Your task to perform on an android device: Go to Google Image 0: 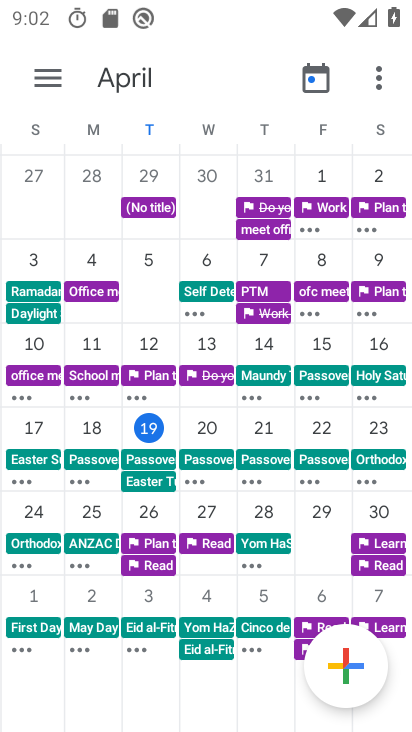
Step 0: press home button
Your task to perform on an android device: Go to Google Image 1: 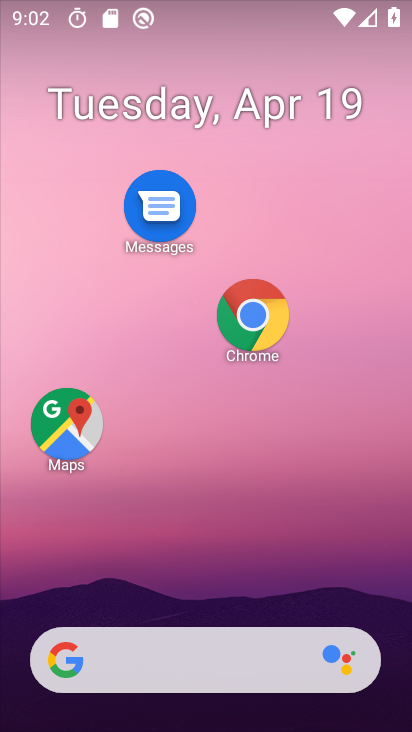
Step 1: drag from (194, 574) to (205, 266)
Your task to perform on an android device: Go to Google Image 2: 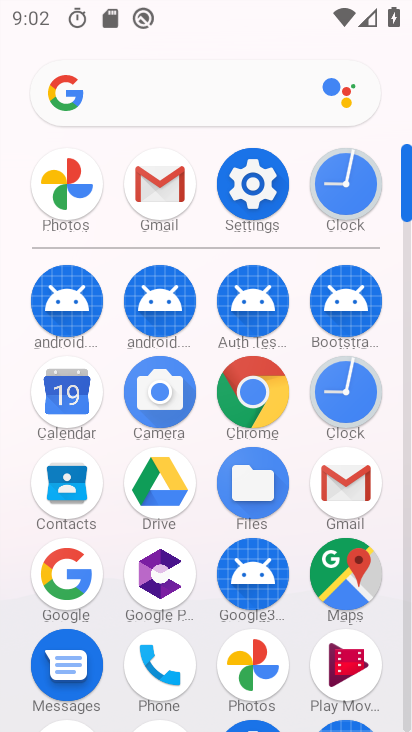
Step 2: drag from (204, 633) to (192, 234)
Your task to perform on an android device: Go to Google Image 3: 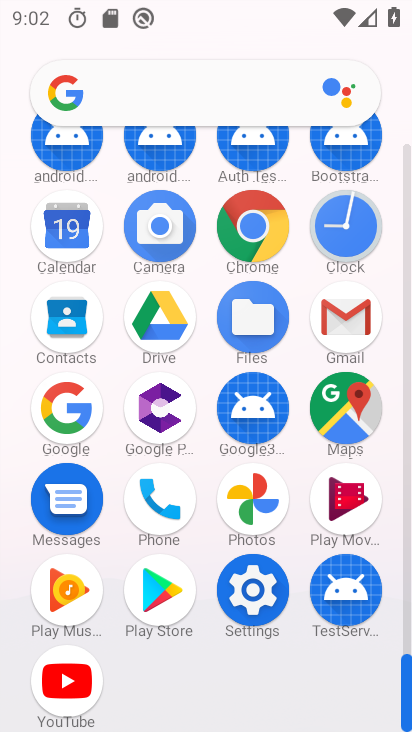
Step 3: click (77, 415)
Your task to perform on an android device: Go to Google Image 4: 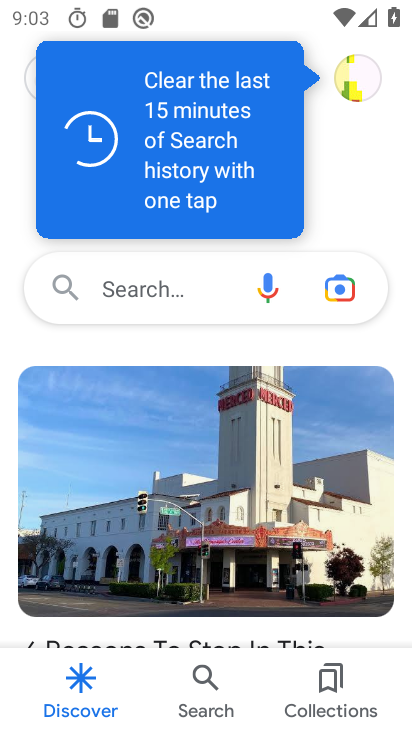
Step 4: task complete